Your task to perform on an android device: Show me popular games on the Play Store Image 0: 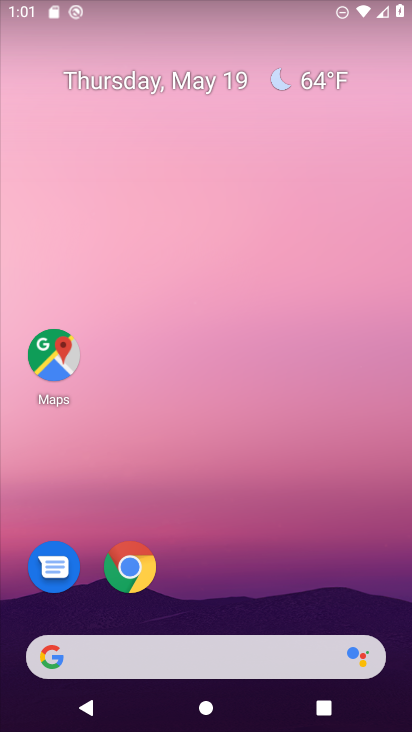
Step 0: drag from (244, 576) to (244, 141)
Your task to perform on an android device: Show me popular games on the Play Store Image 1: 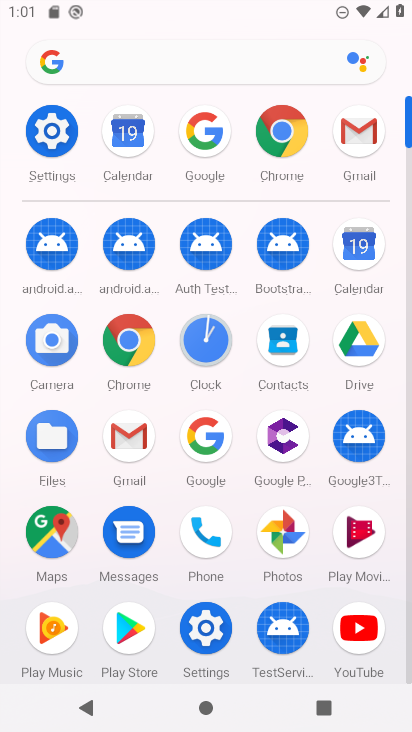
Step 1: click (135, 630)
Your task to perform on an android device: Show me popular games on the Play Store Image 2: 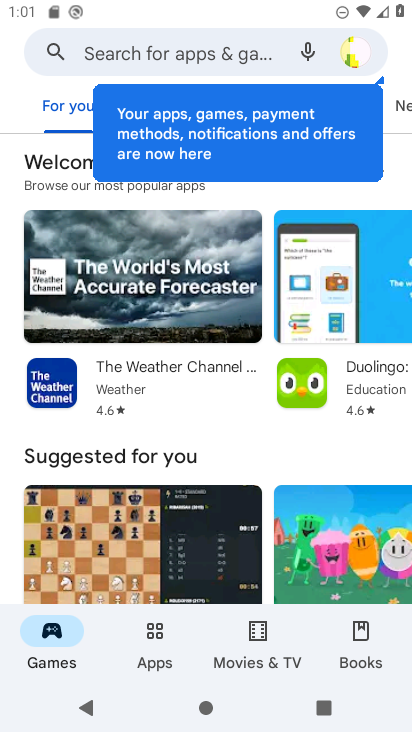
Step 2: drag from (226, 515) to (243, 249)
Your task to perform on an android device: Show me popular games on the Play Store Image 3: 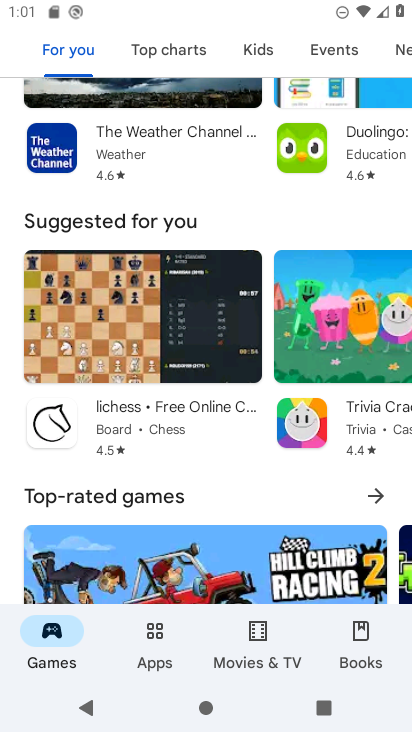
Step 3: drag from (195, 559) to (204, 266)
Your task to perform on an android device: Show me popular games on the Play Store Image 4: 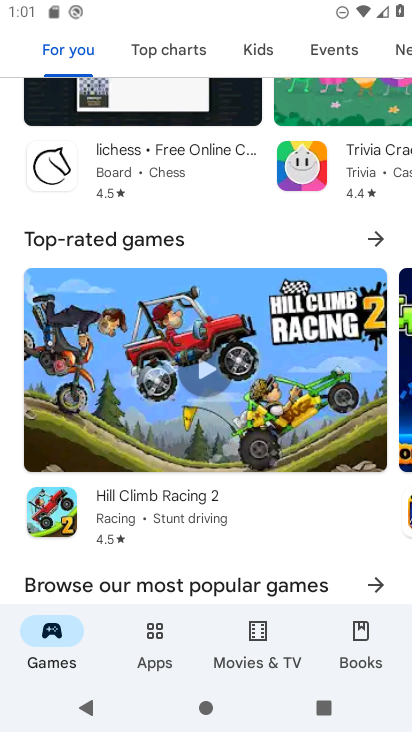
Step 4: drag from (247, 558) to (247, 384)
Your task to perform on an android device: Show me popular games on the Play Store Image 5: 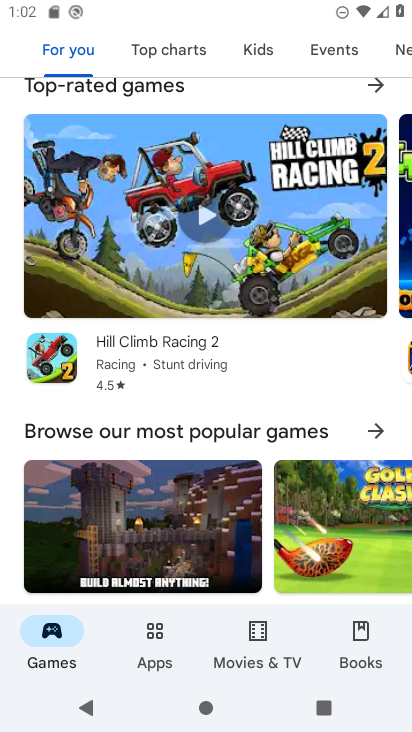
Step 5: click (255, 438)
Your task to perform on an android device: Show me popular games on the Play Store Image 6: 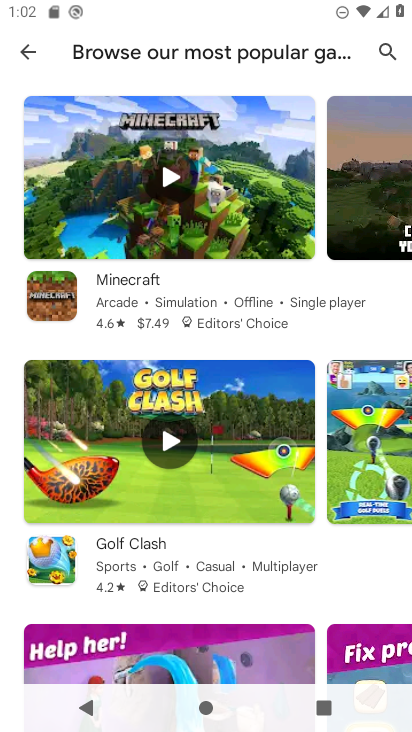
Step 6: task complete